Your task to perform on an android device: move a message to another label in the gmail app Image 0: 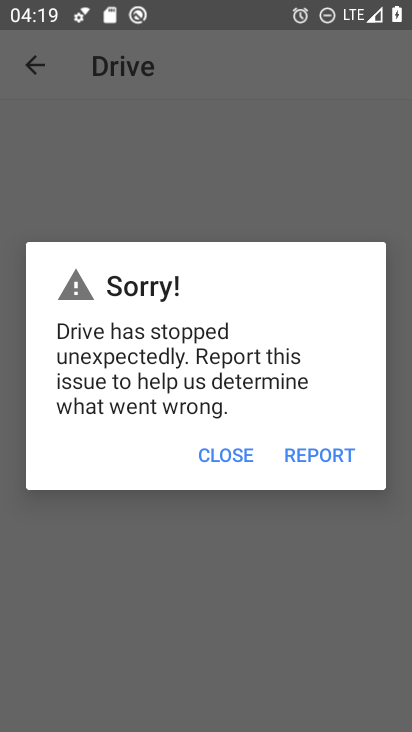
Step 0: press home button
Your task to perform on an android device: move a message to another label in the gmail app Image 1: 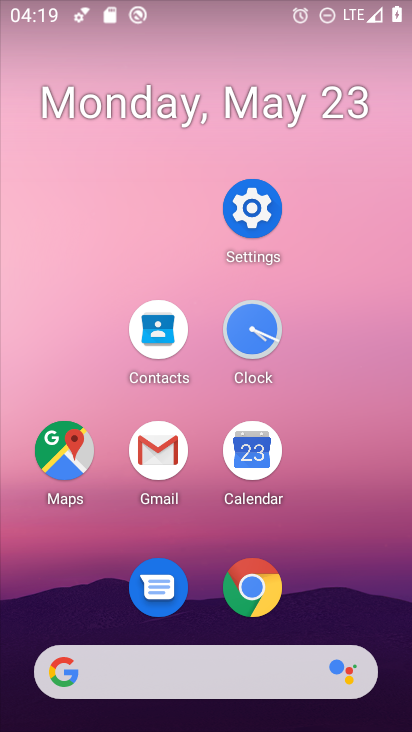
Step 1: click (167, 477)
Your task to perform on an android device: move a message to another label in the gmail app Image 2: 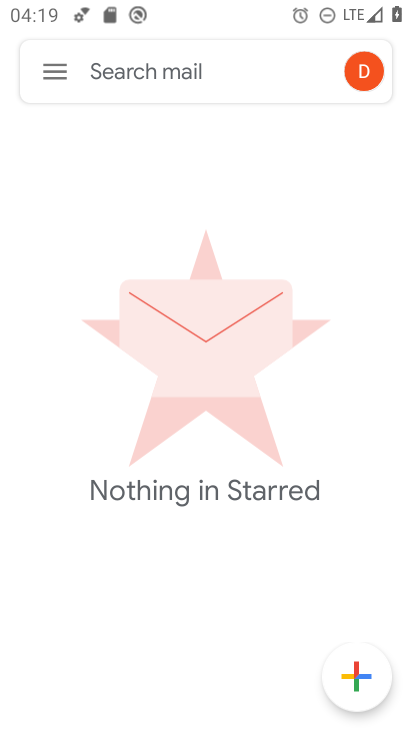
Step 2: click (65, 70)
Your task to perform on an android device: move a message to another label in the gmail app Image 3: 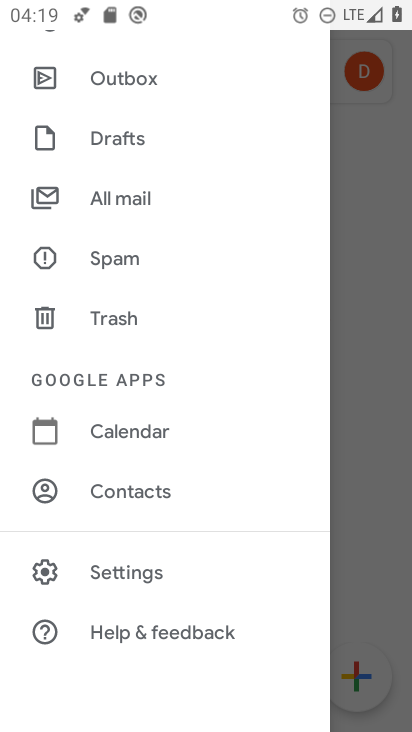
Step 3: click (106, 183)
Your task to perform on an android device: move a message to another label in the gmail app Image 4: 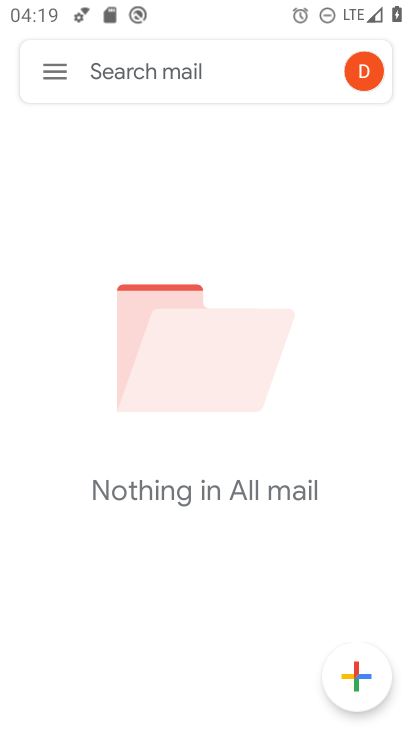
Step 4: task complete